Your task to perform on an android device: check battery use Image 0: 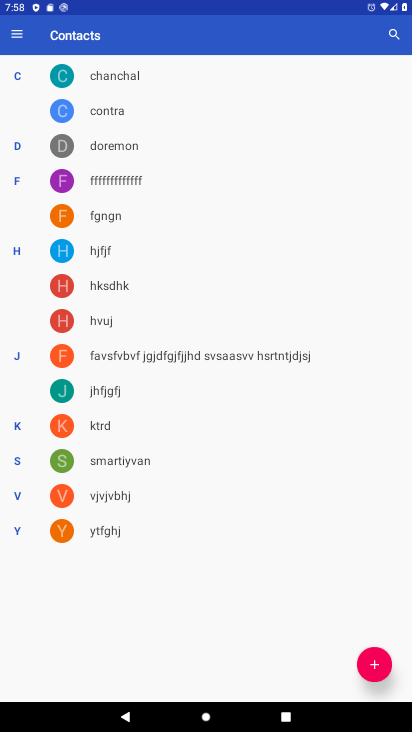
Step 0: press home button
Your task to perform on an android device: check battery use Image 1: 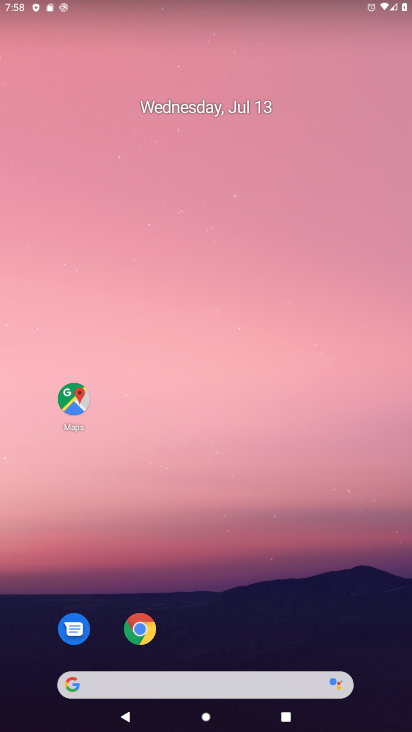
Step 1: drag from (324, 627) to (306, 1)
Your task to perform on an android device: check battery use Image 2: 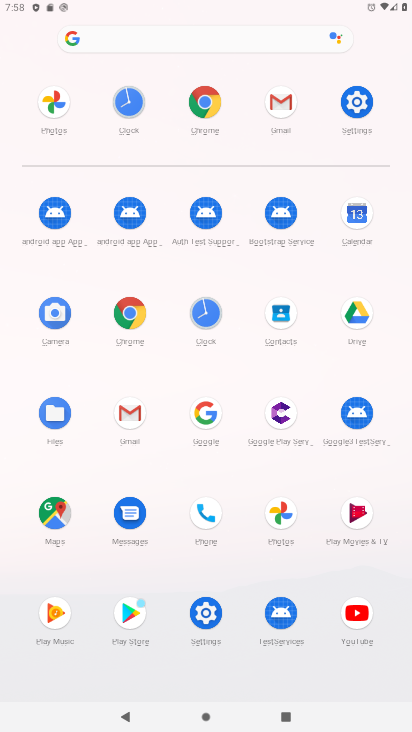
Step 2: click (349, 116)
Your task to perform on an android device: check battery use Image 3: 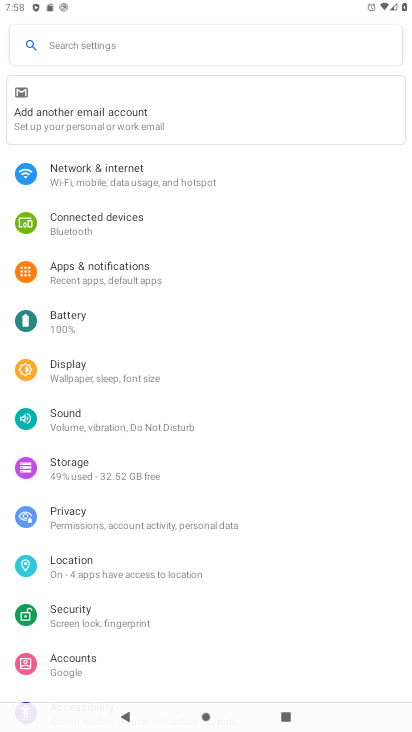
Step 3: click (95, 317)
Your task to perform on an android device: check battery use Image 4: 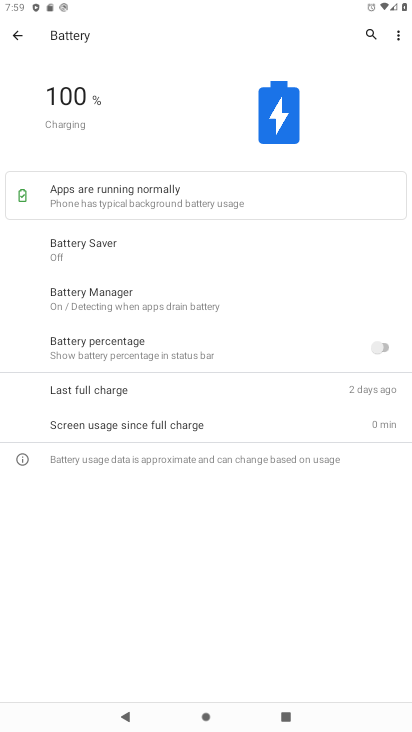
Step 4: task complete